Your task to perform on an android device: create a new album in the google photos Image 0: 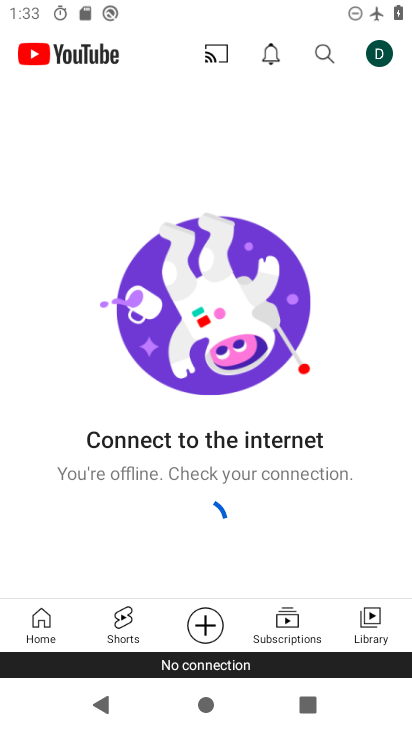
Step 0: press home button
Your task to perform on an android device: create a new album in the google photos Image 1: 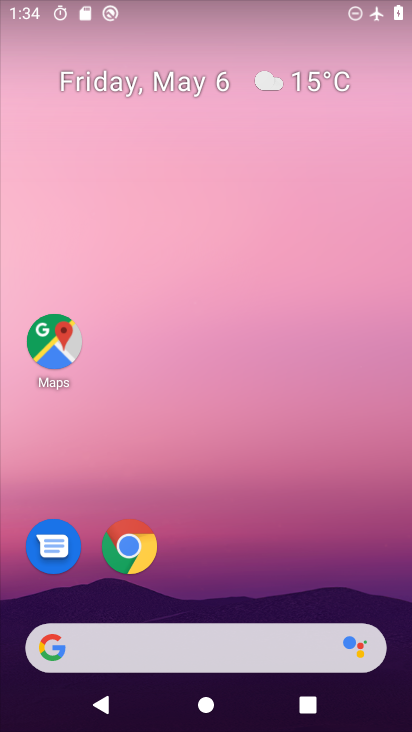
Step 1: drag from (274, 578) to (266, 46)
Your task to perform on an android device: create a new album in the google photos Image 2: 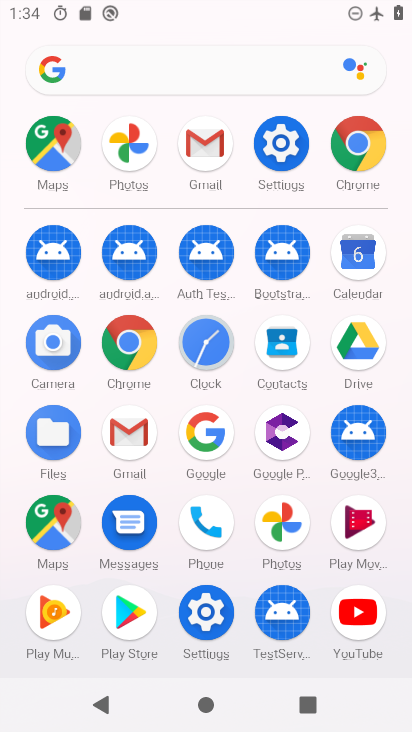
Step 2: click (295, 520)
Your task to perform on an android device: create a new album in the google photos Image 3: 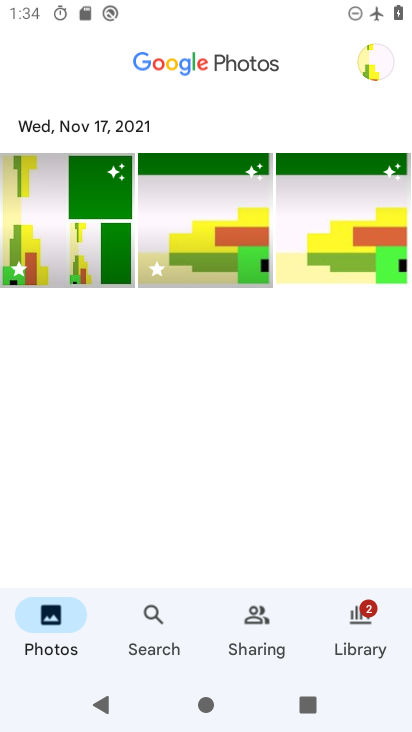
Step 3: click (145, 627)
Your task to perform on an android device: create a new album in the google photos Image 4: 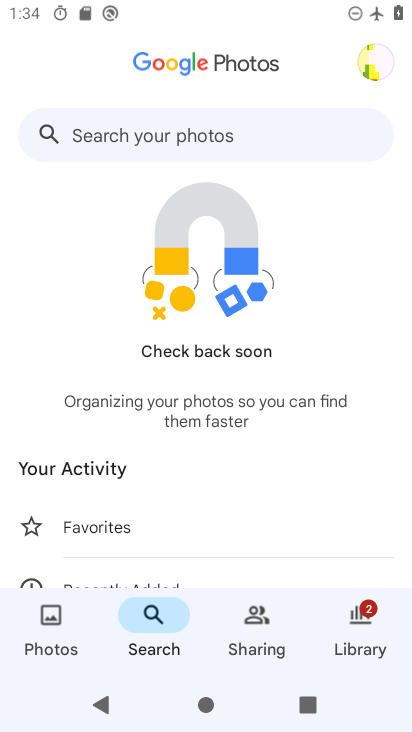
Step 4: drag from (182, 536) to (151, 207)
Your task to perform on an android device: create a new album in the google photos Image 5: 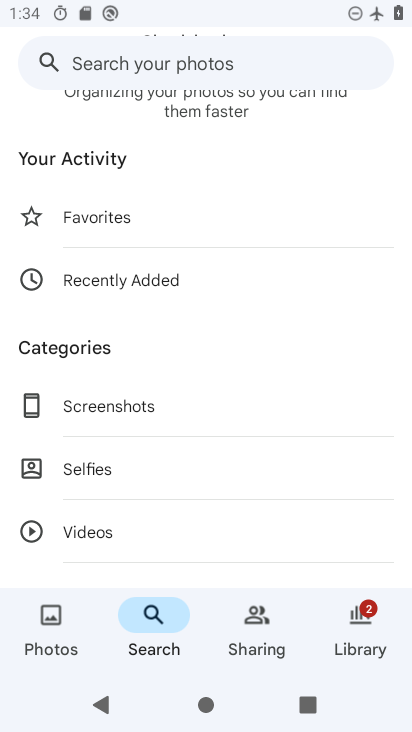
Step 5: drag from (260, 519) to (259, 288)
Your task to perform on an android device: create a new album in the google photos Image 6: 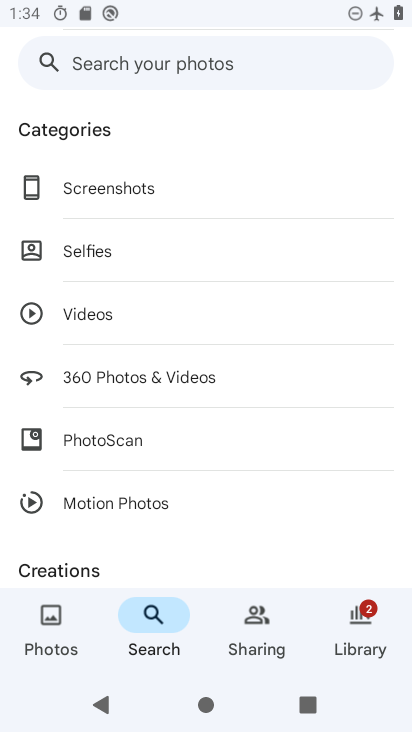
Step 6: drag from (248, 133) to (304, 481)
Your task to perform on an android device: create a new album in the google photos Image 7: 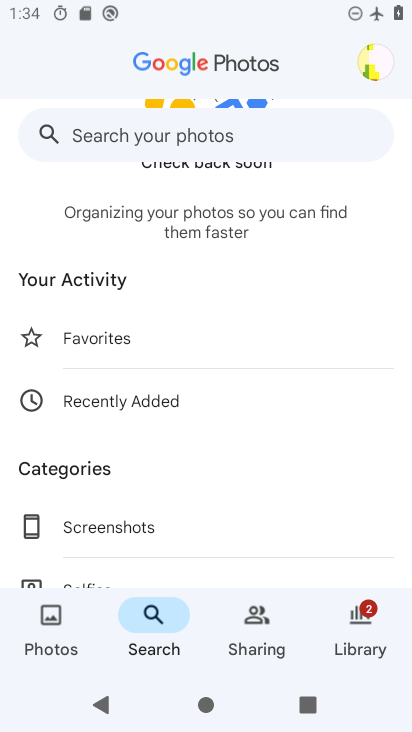
Step 7: drag from (247, 462) to (245, 195)
Your task to perform on an android device: create a new album in the google photos Image 8: 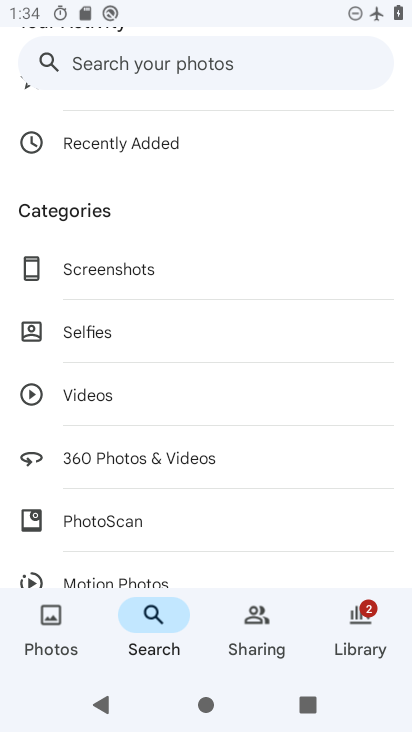
Step 8: drag from (203, 538) to (251, 208)
Your task to perform on an android device: create a new album in the google photos Image 9: 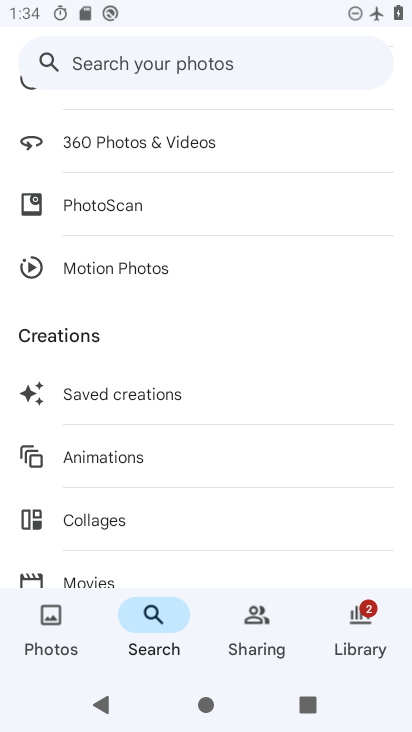
Step 9: drag from (252, 448) to (282, 187)
Your task to perform on an android device: create a new album in the google photos Image 10: 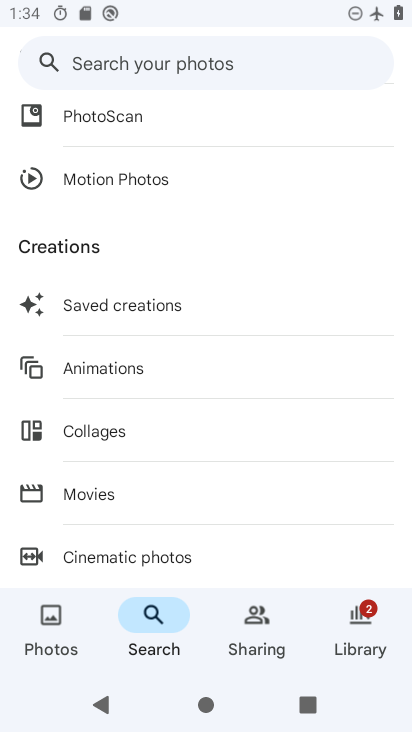
Step 10: drag from (294, 150) to (314, 588)
Your task to perform on an android device: create a new album in the google photos Image 11: 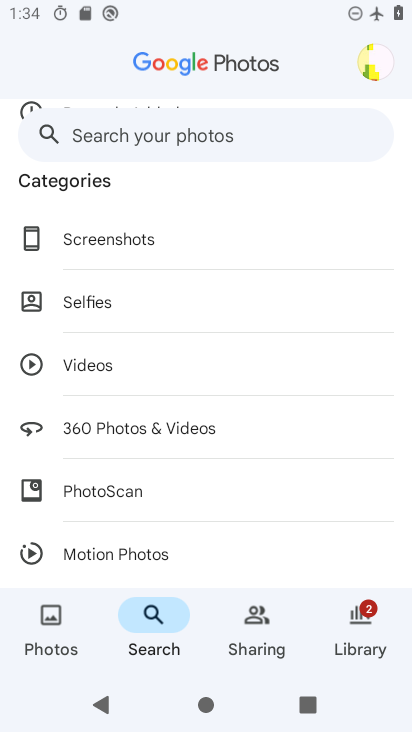
Step 11: drag from (349, 186) to (333, 508)
Your task to perform on an android device: create a new album in the google photos Image 12: 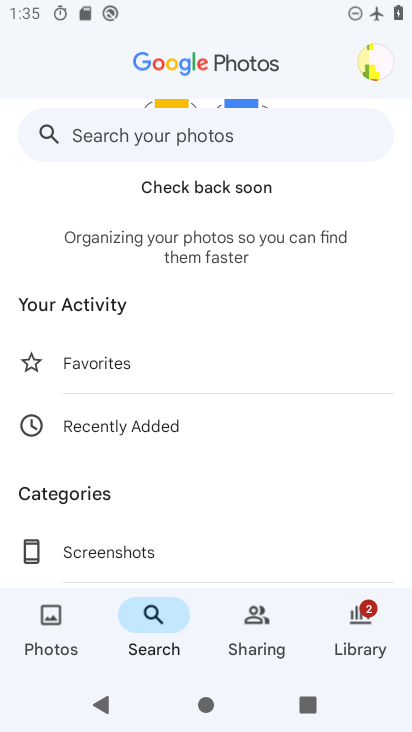
Step 12: drag from (299, 274) to (293, 398)
Your task to perform on an android device: create a new album in the google photos Image 13: 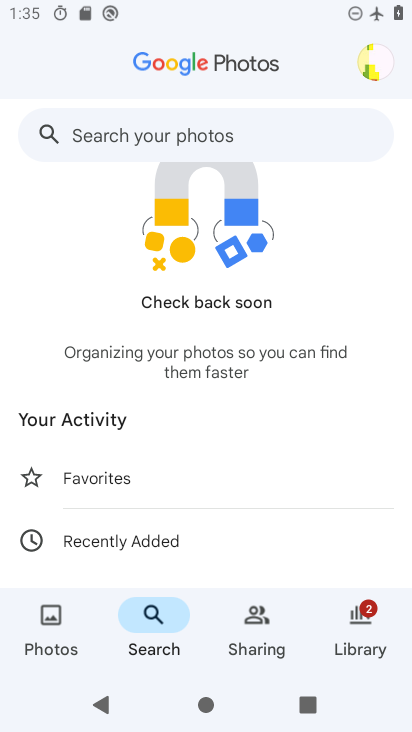
Step 13: click (363, 620)
Your task to perform on an android device: create a new album in the google photos Image 14: 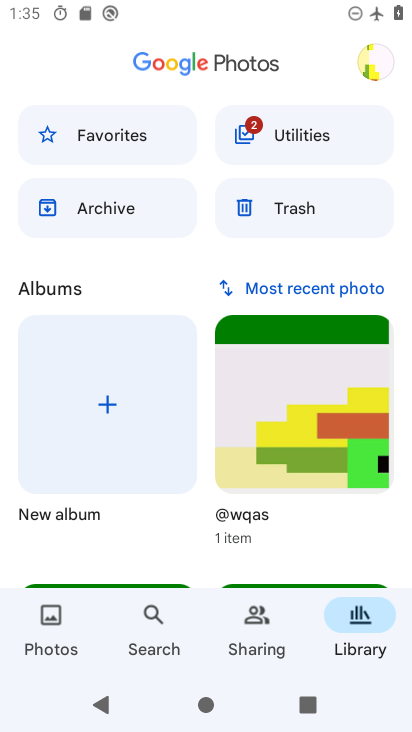
Step 14: click (106, 407)
Your task to perform on an android device: create a new album in the google photos Image 15: 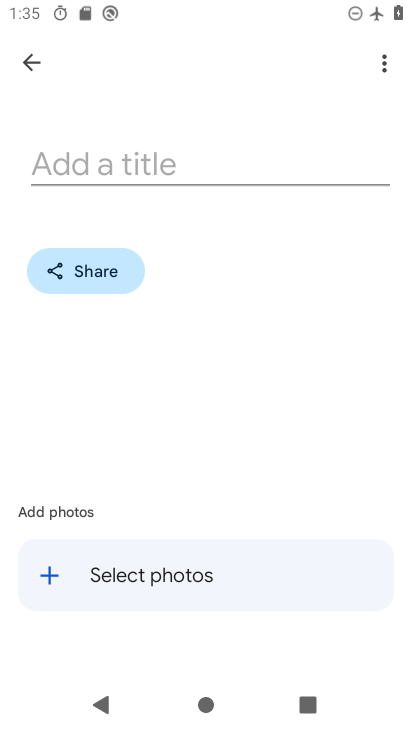
Step 15: click (188, 169)
Your task to perform on an android device: create a new album in the google photos Image 16: 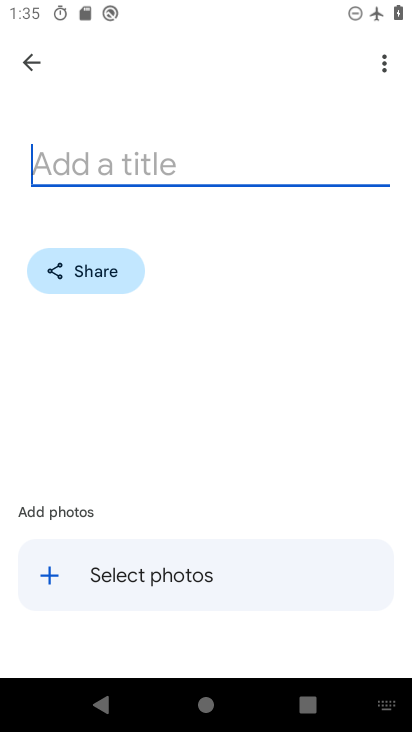
Step 16: type "ytvydcthd"
Your task to perform on an android device: create a new album in the google photos Image 17: 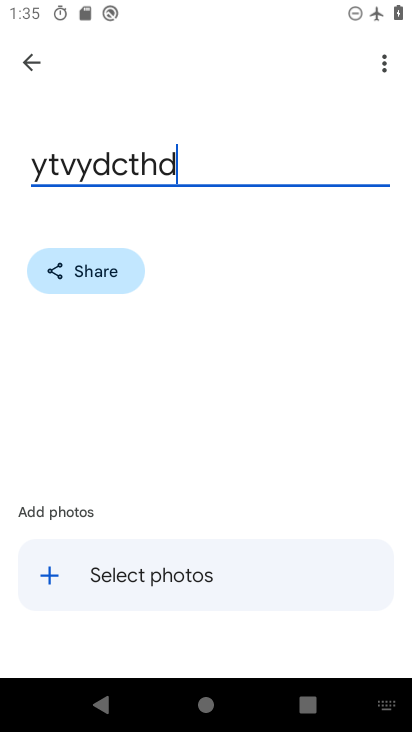
Step 17: click (46, 572)
Your task to perform on an android device: create a new album in the google photos Image 18: 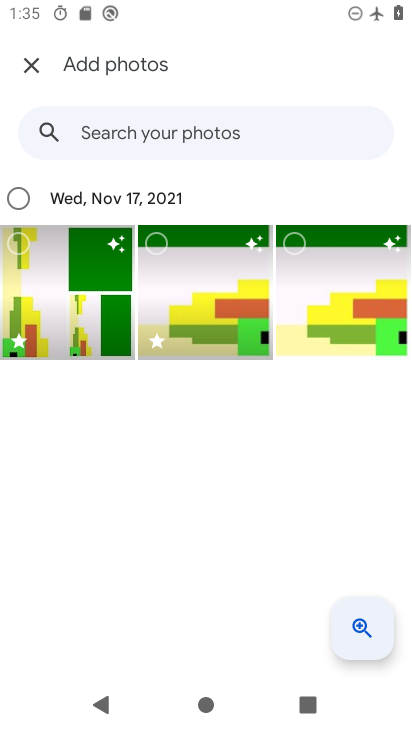
Step 18: click (164, 236)
Your task to perform on an android device: create a new album in the google photos Image 19: 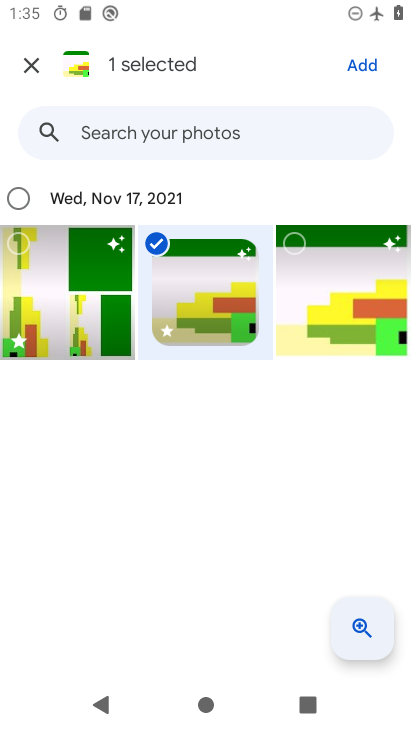
Step 19: click (300, 240)
Your task to perform on an android device: create a new album in the google photos Image 20: 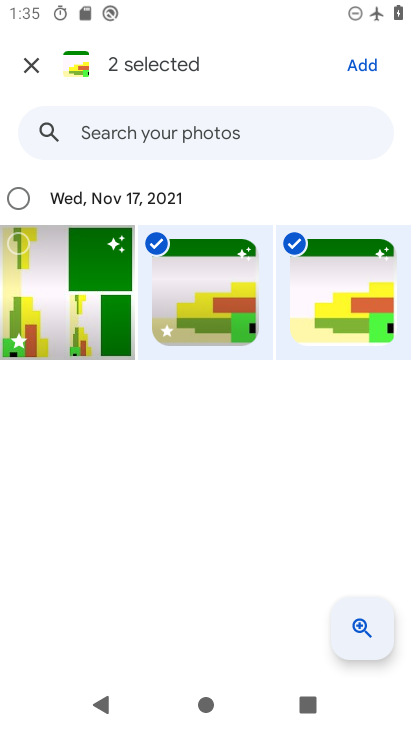
Step 20: click (367, 58)
Your task to perform on an android device: create a new album in the google photos Image 21: 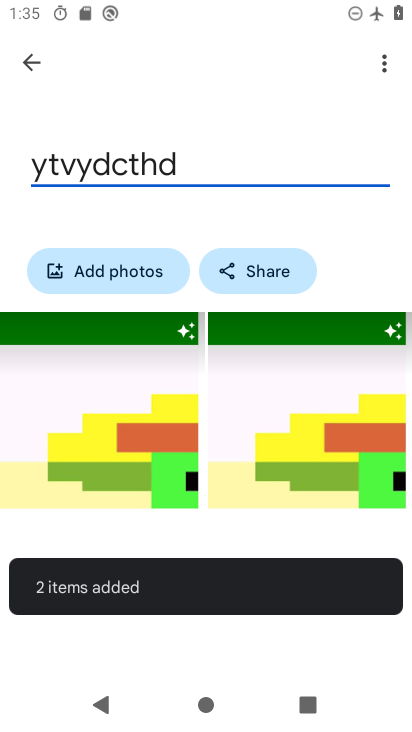
Step 21: task complete